Your task to perform on an android device: open a bookmark in the chrome app Image 0: 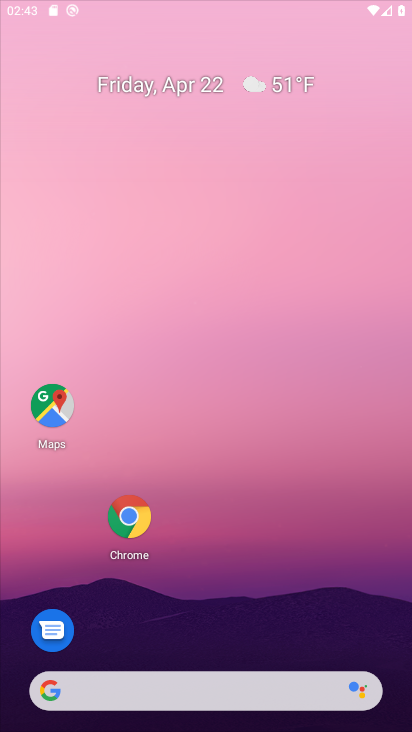
Step 0: click (132, 519)
Your task to perform on an android device: open a bookmark in the chrome app Image 1: 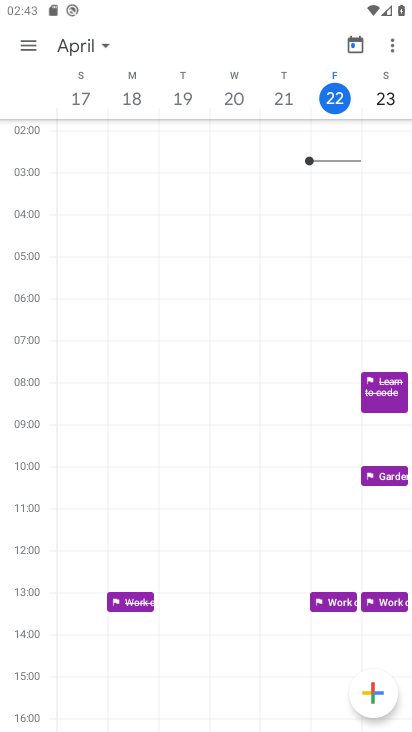
Step 1: press home button
Your task to perform on an android device: open a bookmark in the chrome app Image 2: 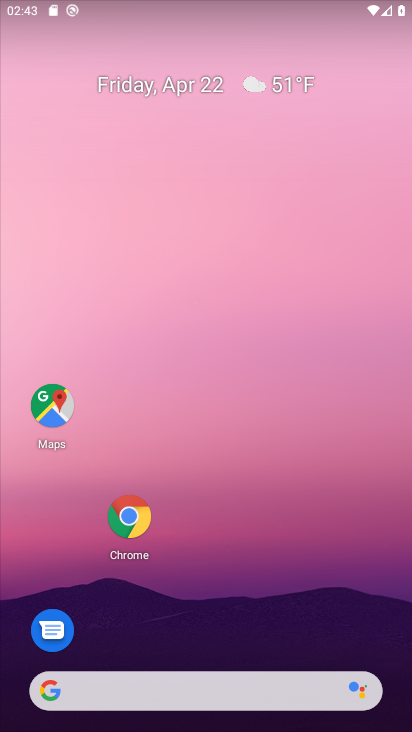
Step 2: click (127, 515)
Your task to perform on an android device: open a bookmark in the chrome app Image 3: 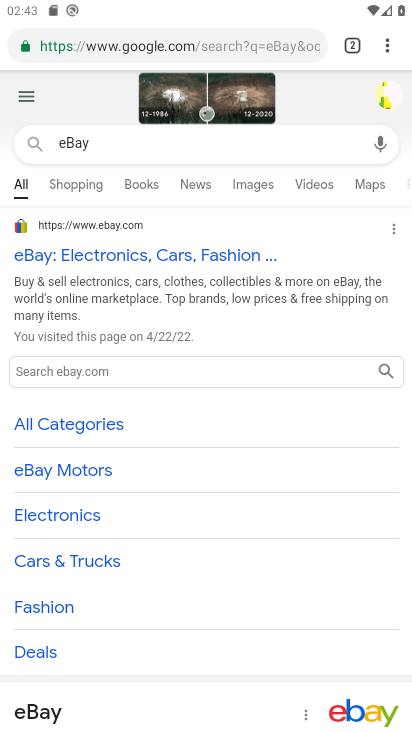
Step 3: click (387, 38)
Your task to perform on an android device: open a bookmark in the chrome app Image 4: 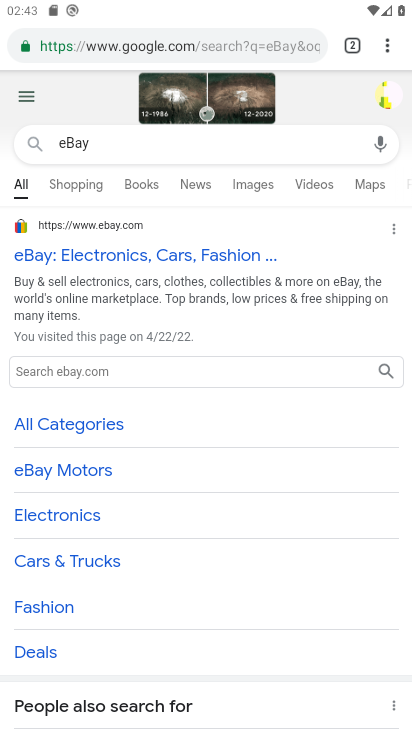
Step 4: click (387, 39)
Your task to perform on an android device: open a bookmark in the chrome app Image 5: 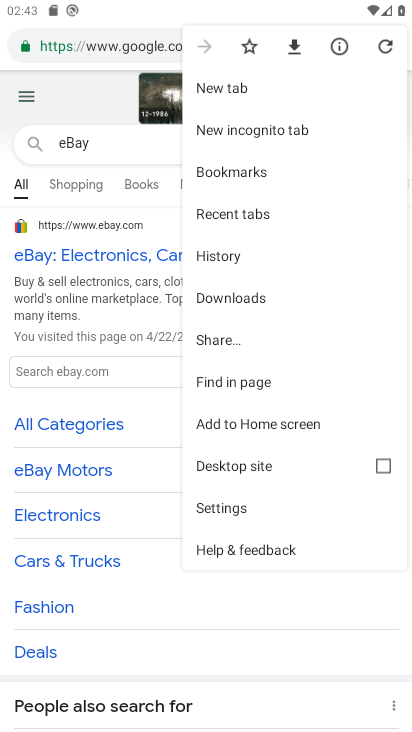
Step 5: click (218, 171)
Your task to perform on an android device: open a bookmark in the chrome app Image 6: 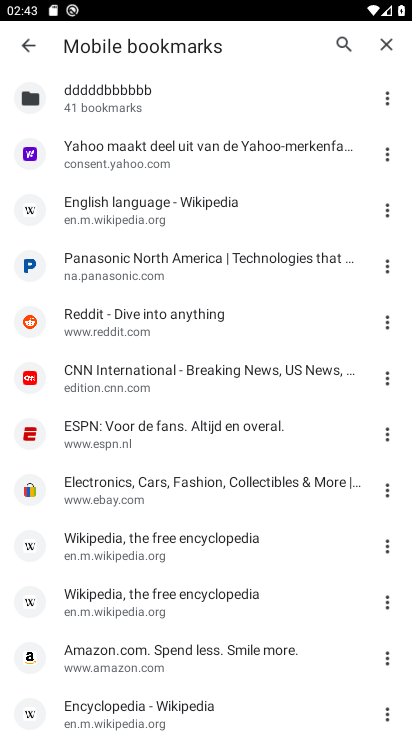
Step 6: click (89, 434)
Your task to perform on an android device: open a bookmark in the chrome app Image 7: 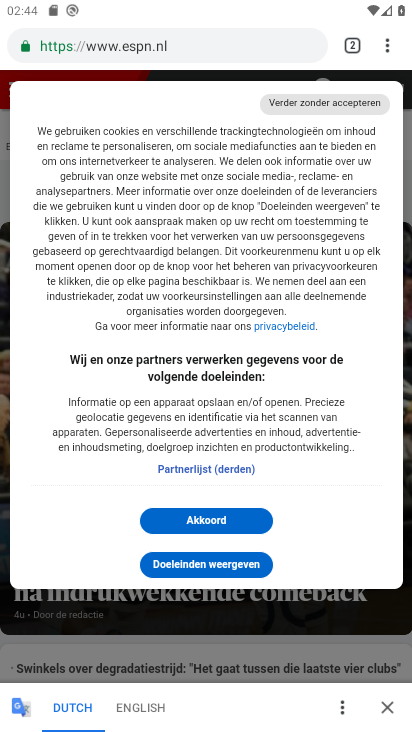
Step 7: task complete